Your task to perform on an android device: What's on my calendar today? Image 0: 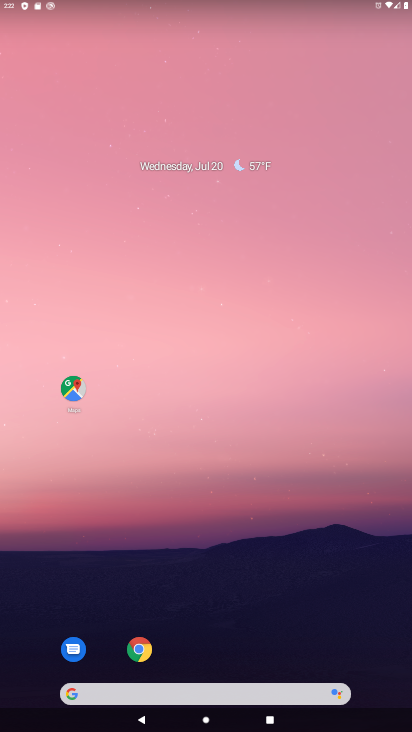
Step 0: click (181, 160)
Your task to perform on an android device: What's on my calendar today? Image 1: 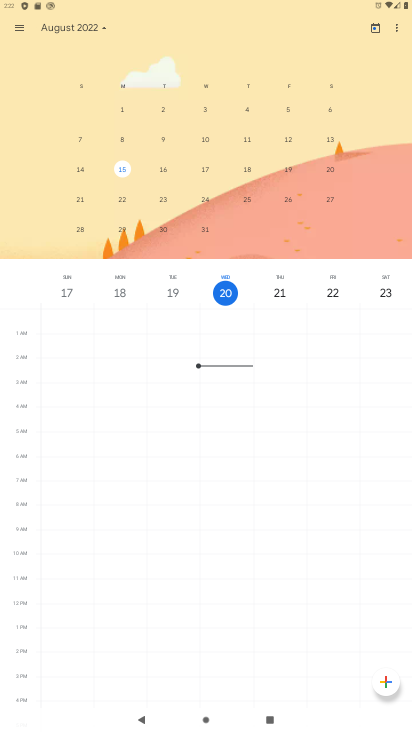
Step 1: click (126, 168)
Your task to perform on an android device: What's on my calendar today? Image 2: 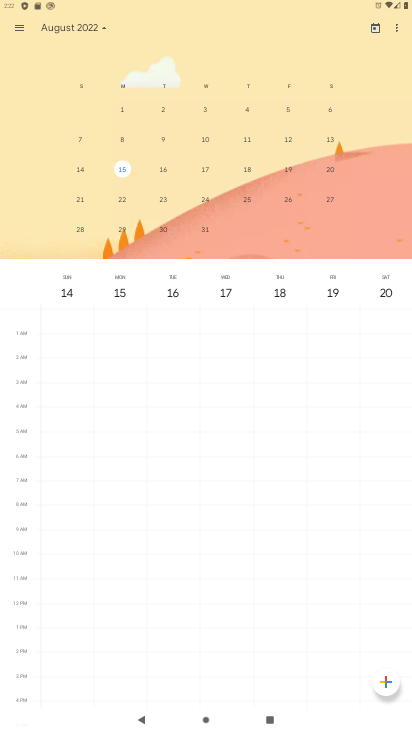
Step 2: task complete